Your task to perform on an android device: star an email in the gmail app Image 0: 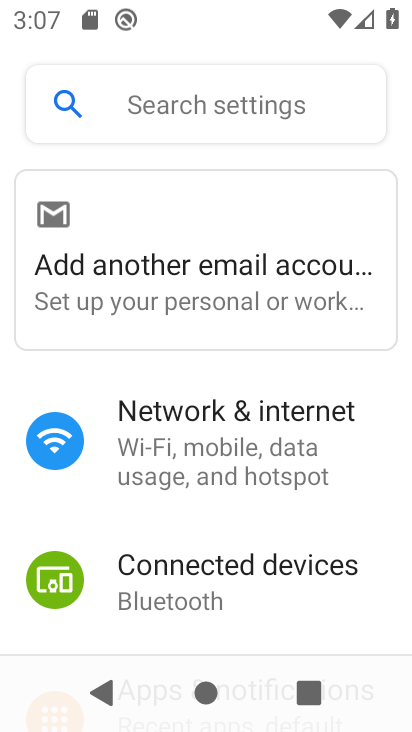
Step 0: press home button
Your task to perform on an android device: star an email in the gmail app Image 1: 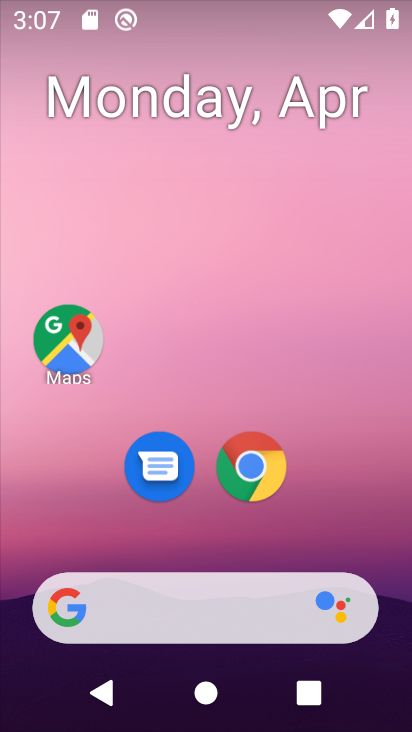
Step 1: drag from (268, 523) to (277, 78)
Your task to perform on an android device: star an email in the gmail app Image 2: 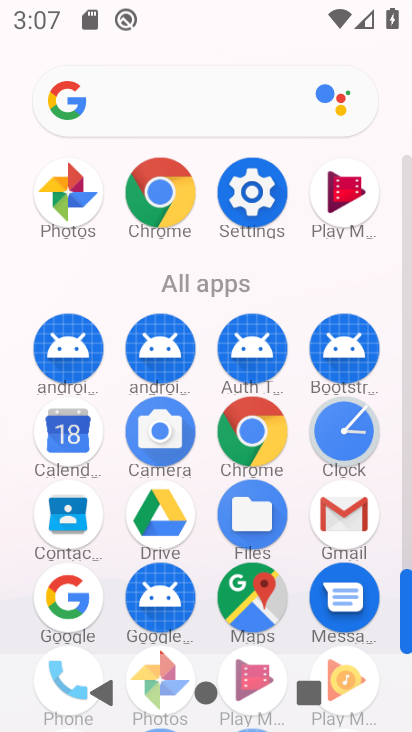
Step 2: drag from (220, 526) to (242, 396)
Your task to perform on an android device: star an email in the gmail app Image 3: 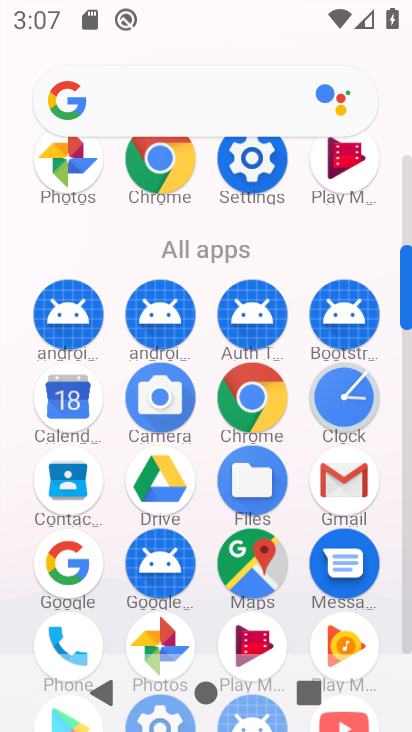
Step 3: click (351, 502)
Your task to perform on an android device: star an email in the gmail app Image 4: 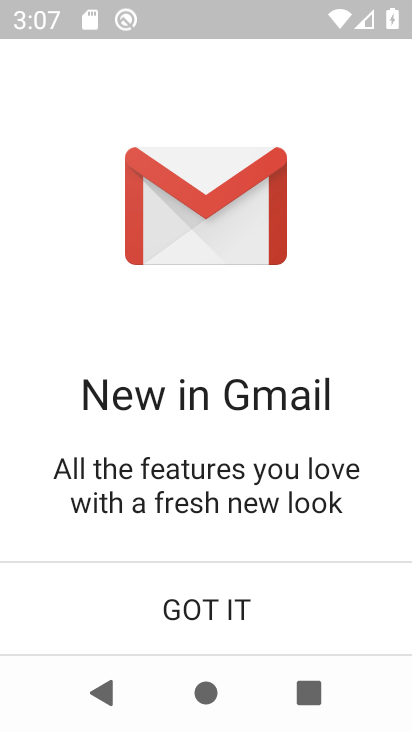
Step 4: click (222, 613)
Your task to perform on an android device: star an email in the gmail app Image 5: 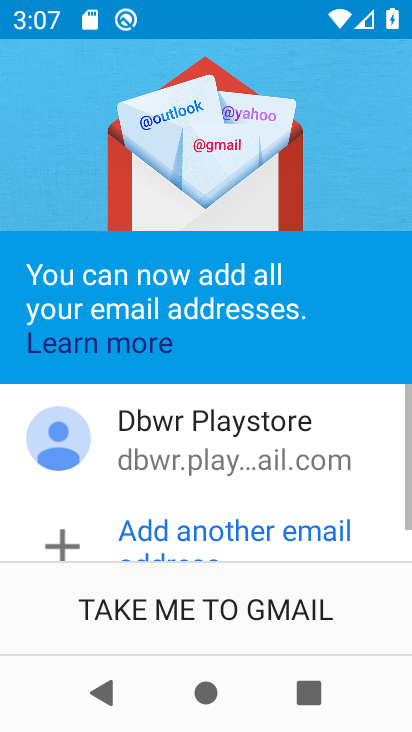
Step 5: click (221, 612)
Your task to perform on an android device: star an email in the gmail app Image 6: 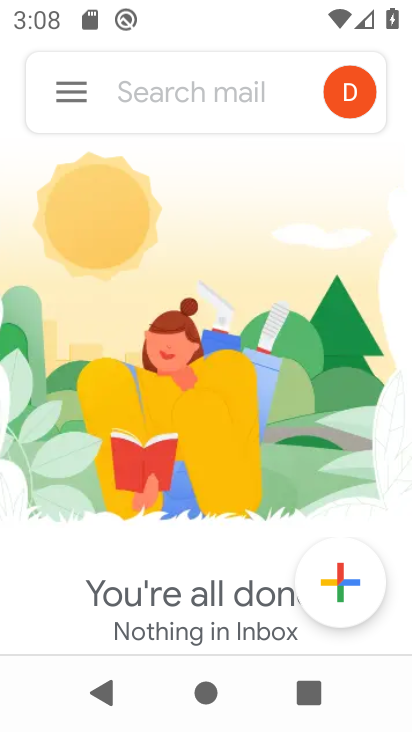
Step 6: click (65, 87)
Your task to perform on an android device: star an email in the gmail app Image 7: 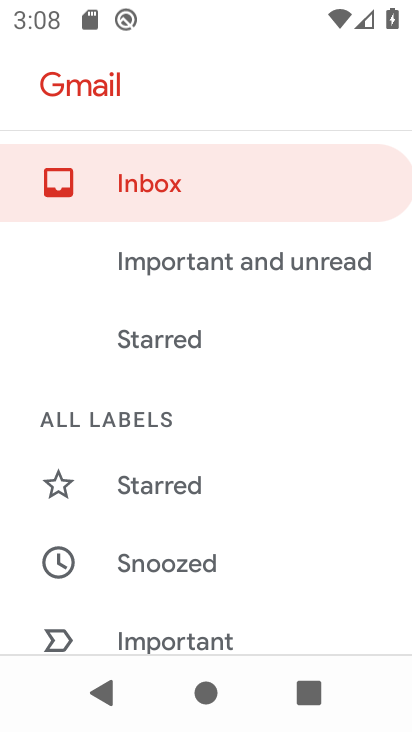
Step 7: click (128, 264)
Your task to perform on an android device: star an email in the gmail app Image 8: 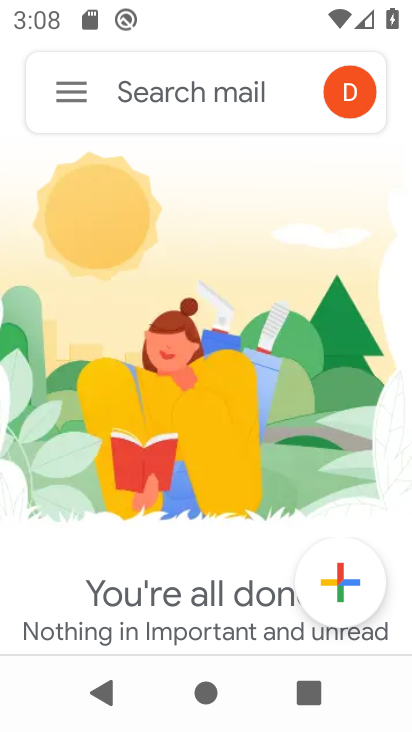
Step 8: task complete